Your task to perform on an android device: toggle notifications settings in the gmail app Image 0: 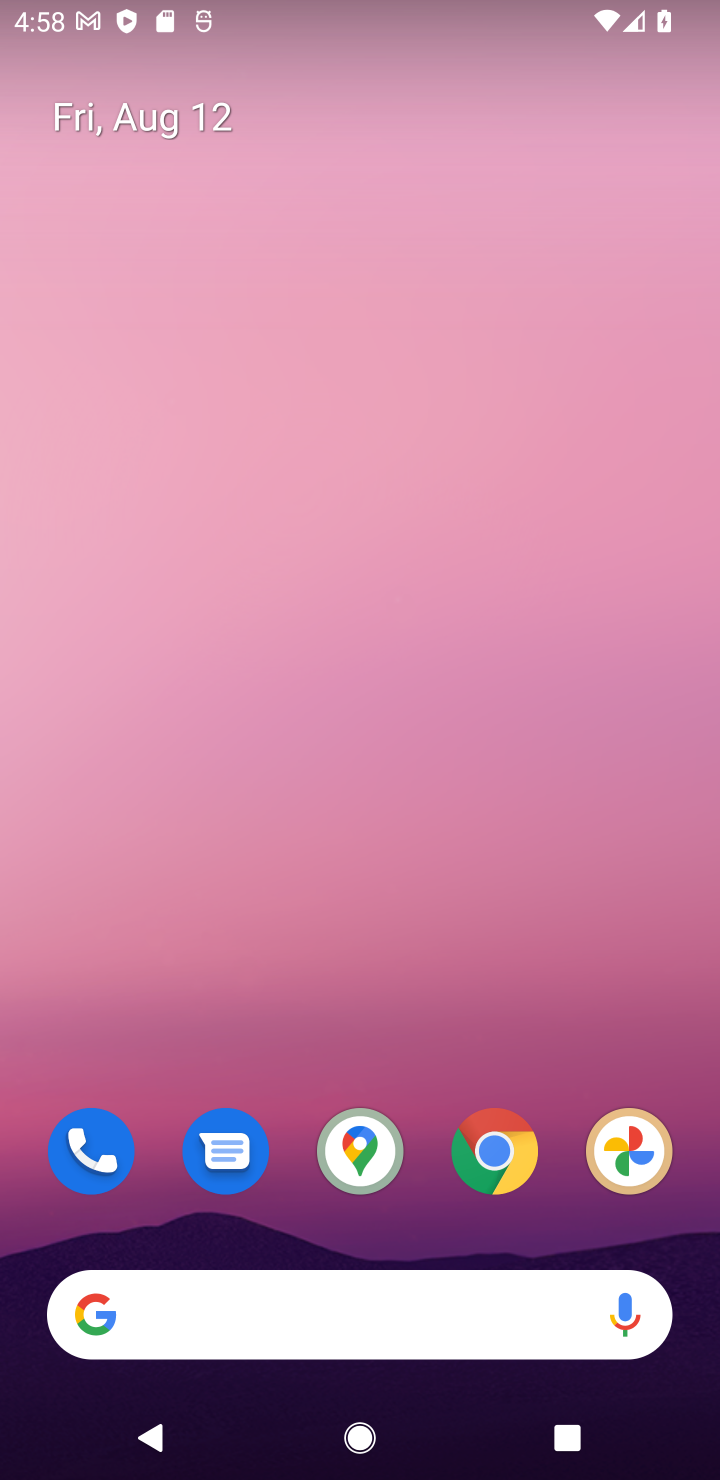
Step 0: drag from (448, 1228) to (442, 268)
Your task to perform on an android device: toggle notifications settings in the gmail app Image 1: 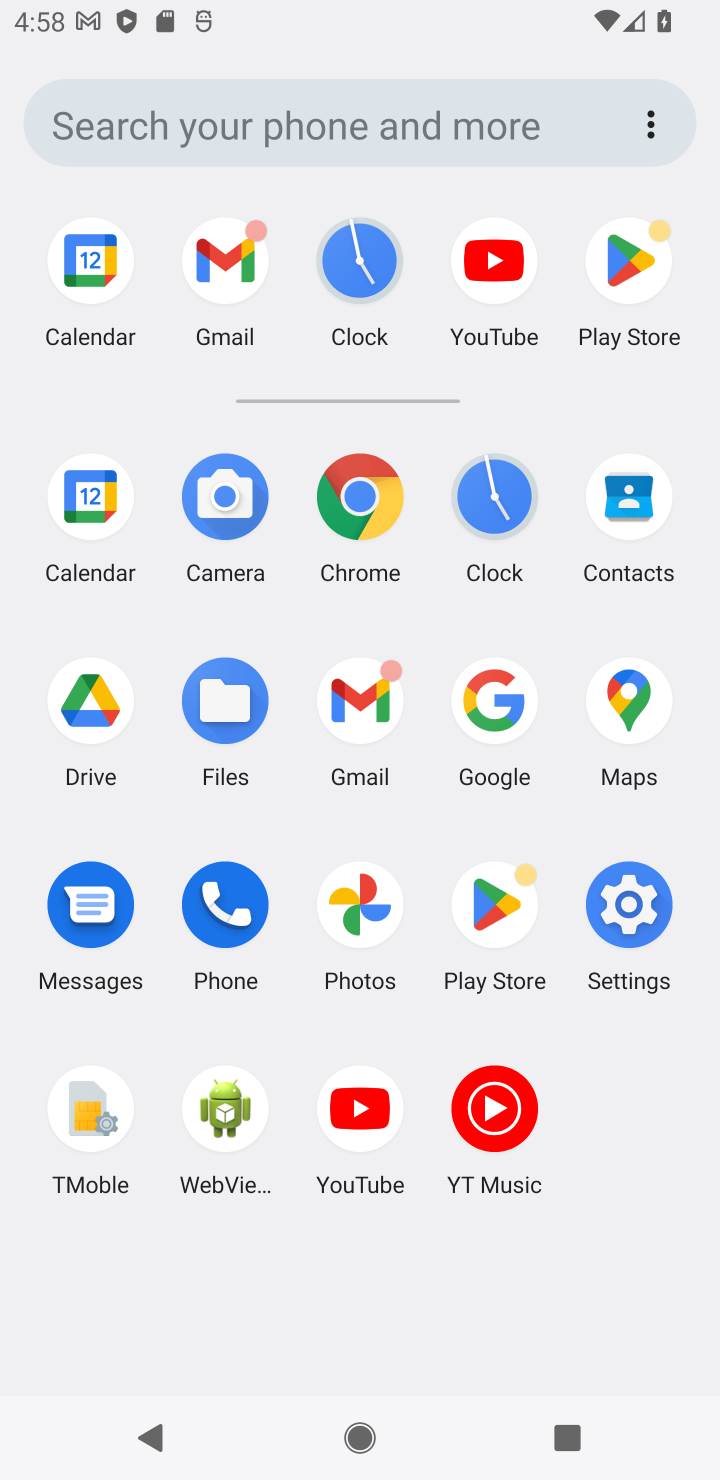
Step 1: click (371, 708)
Your task to perform on an android device: toggle notifications settings in the gmail app Image 2: 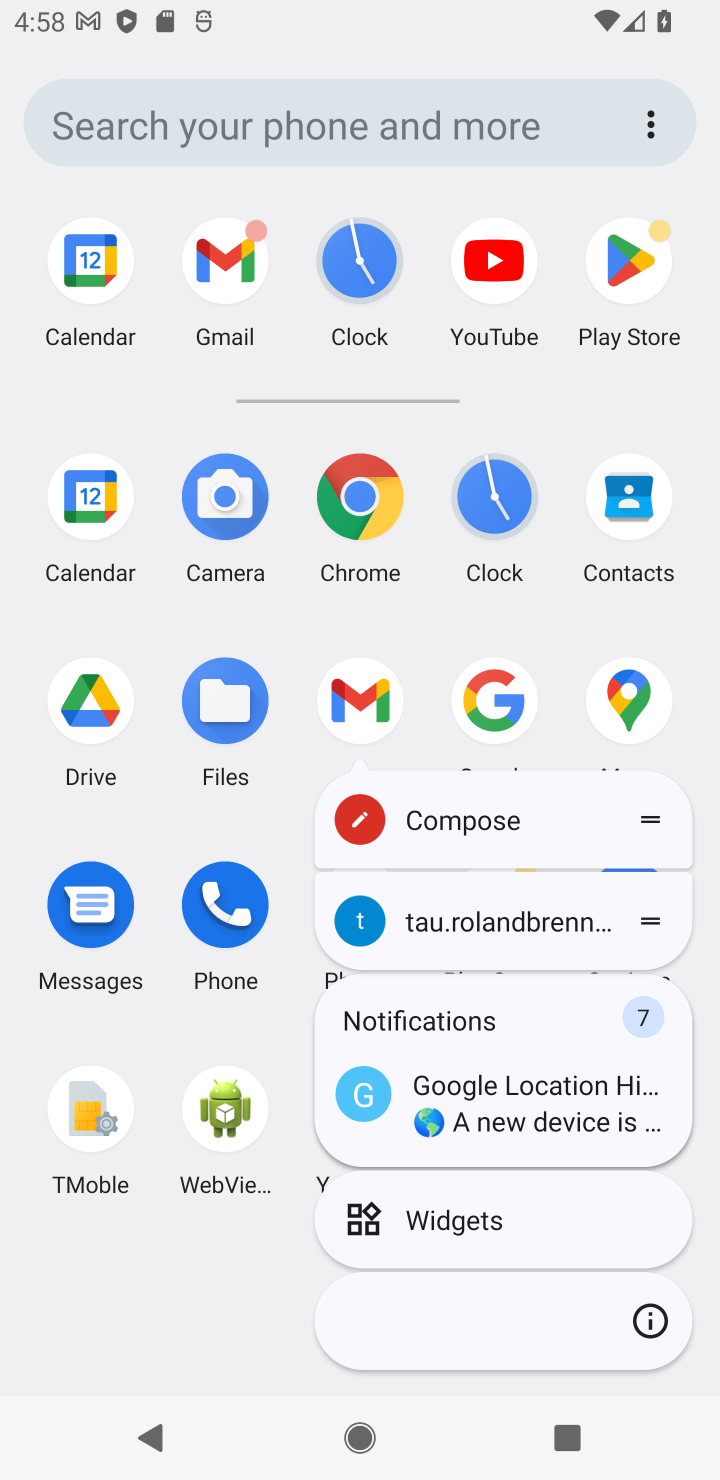
Step 2: click (375, 704)
Your task to perform on an android device: toggle notifications settings in the gmail app Image 3: 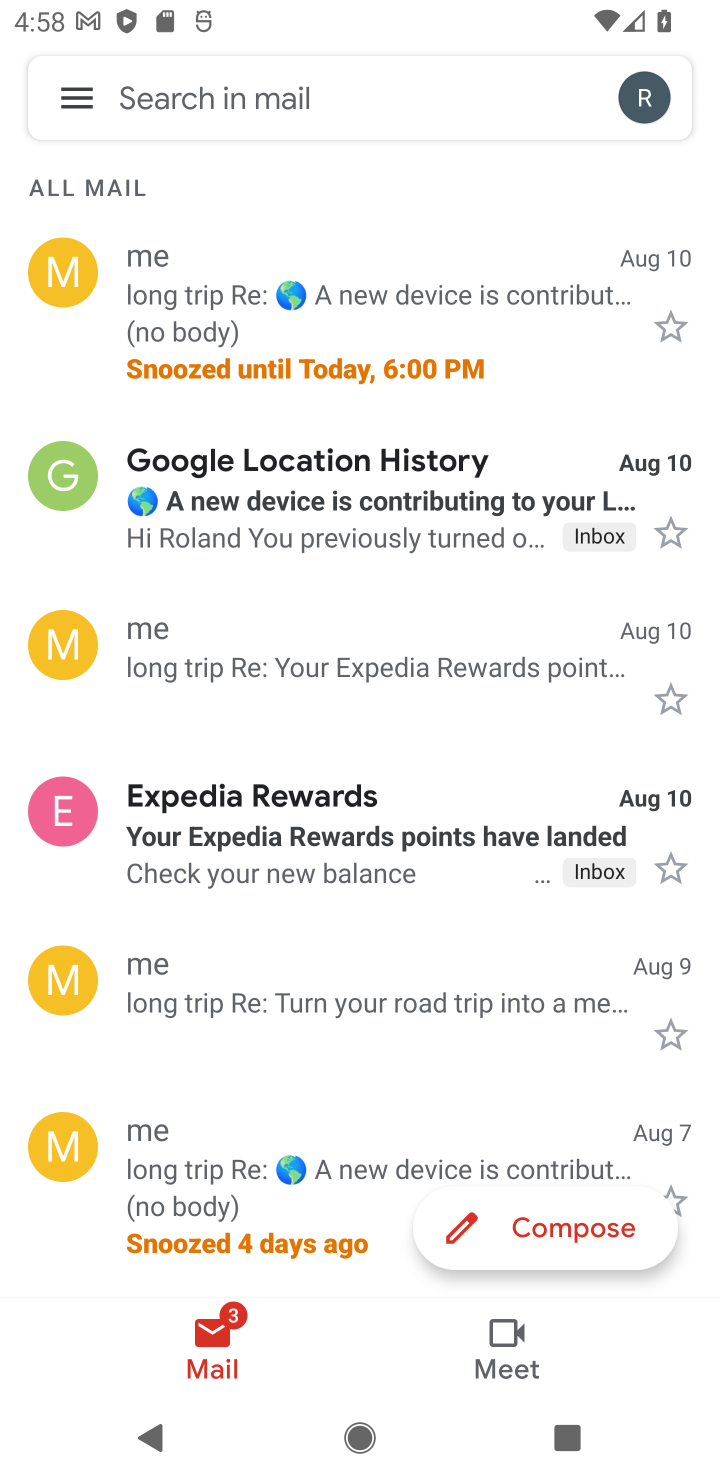
Step 3: click (70, 81)
Your task to perform on an android device: toggle notifications settings in the gmail app Image 4: 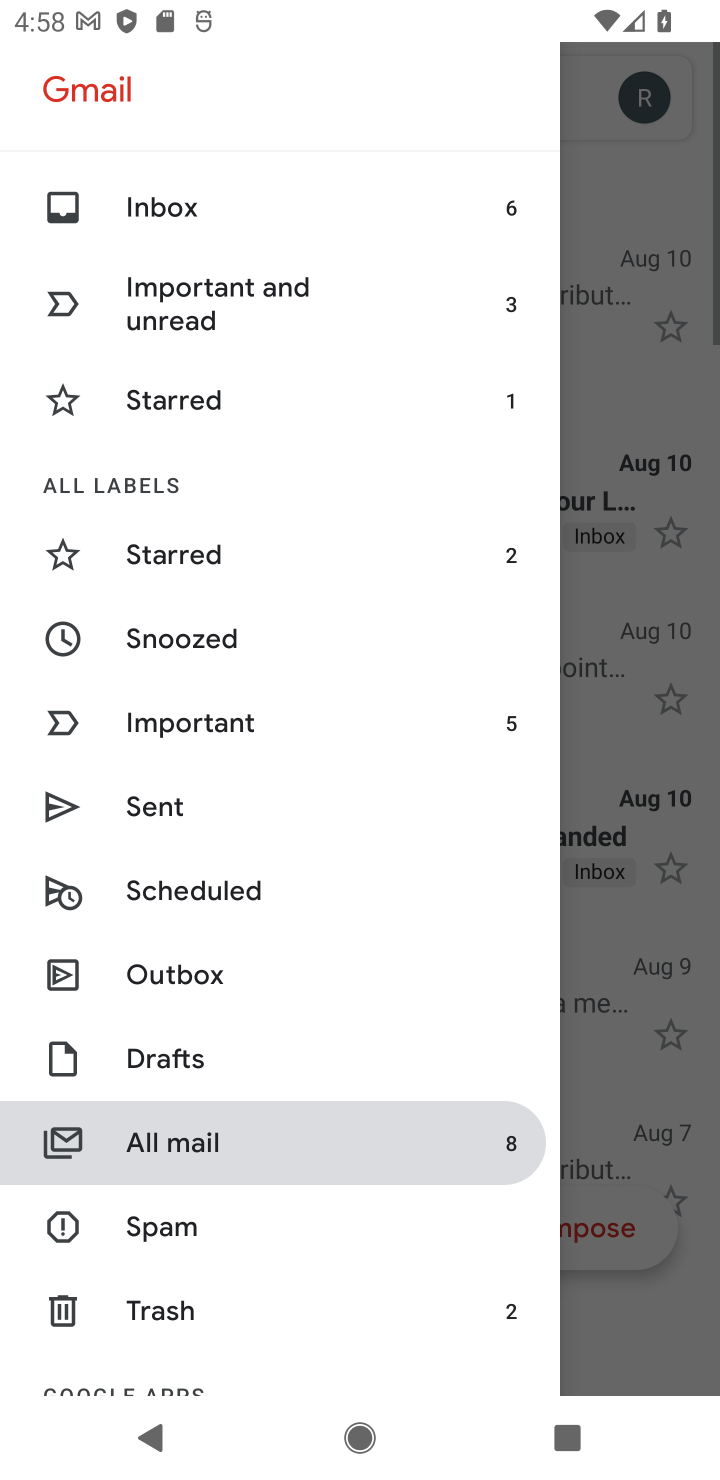
Step 4: drag from (201, 1317) to (334, 539)
Your task to perform on an android device: toggle notifications settings in the gmail app Image 5: 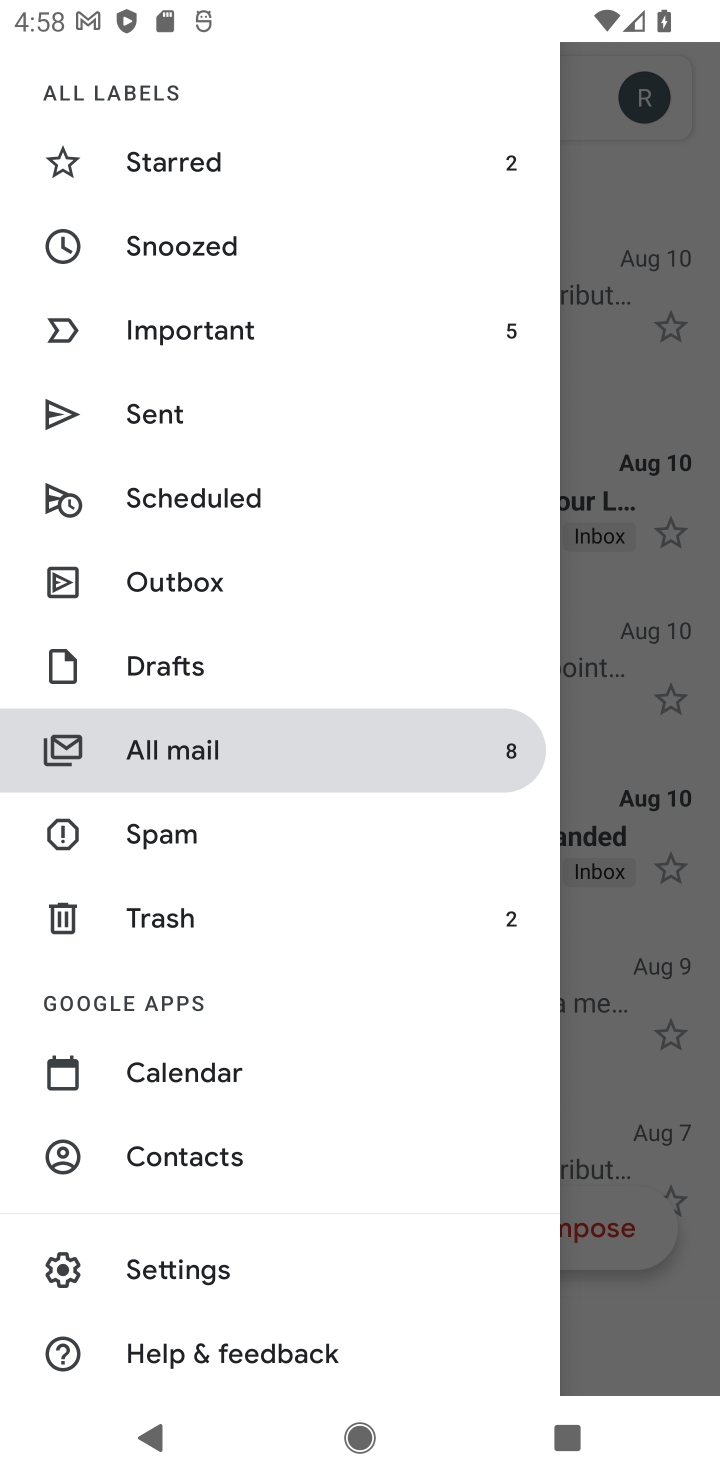
Step 5: click (199, 1276)
Your task to perform on an android device: toggle notifications settings in the gmail app Image 6: 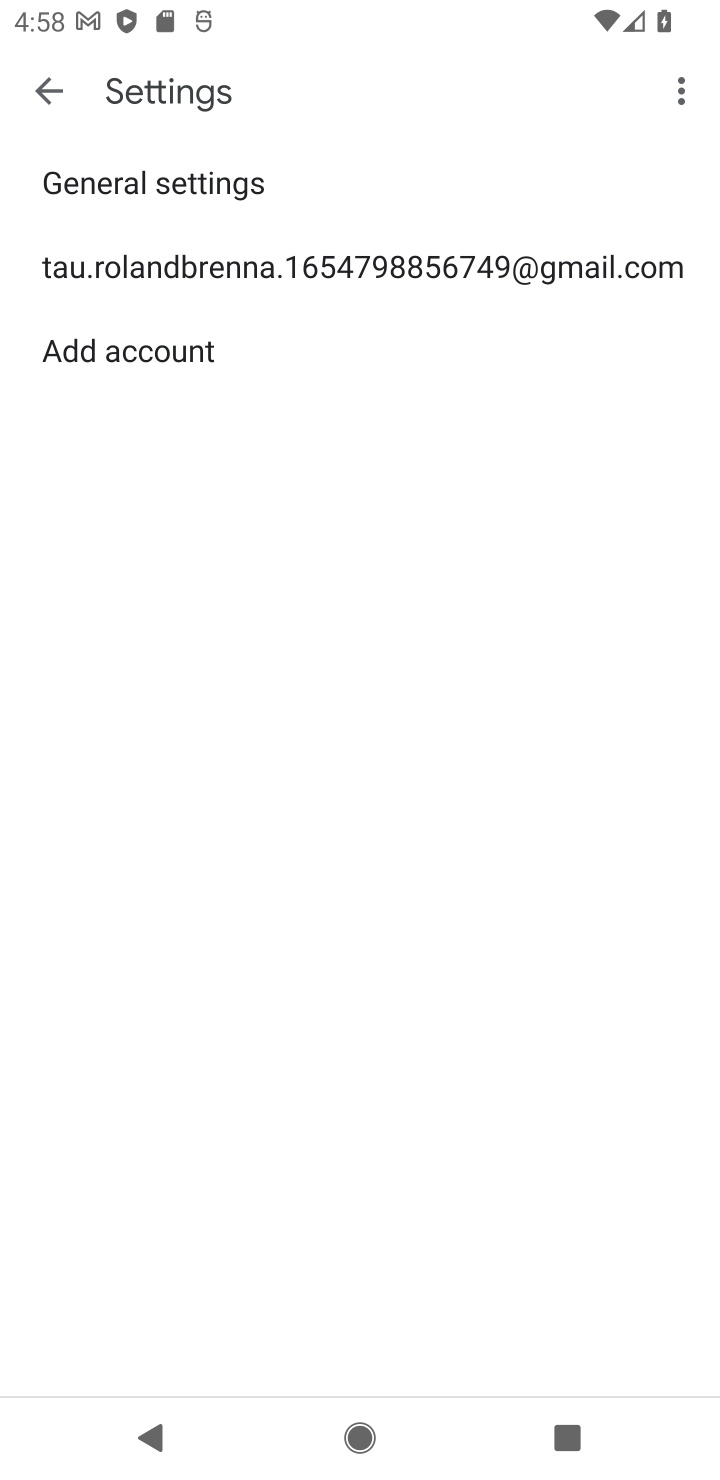
Step 6: click (430, 288)
Your task to perform on an android device: toggle notifications settings in the gmail app Image 7: 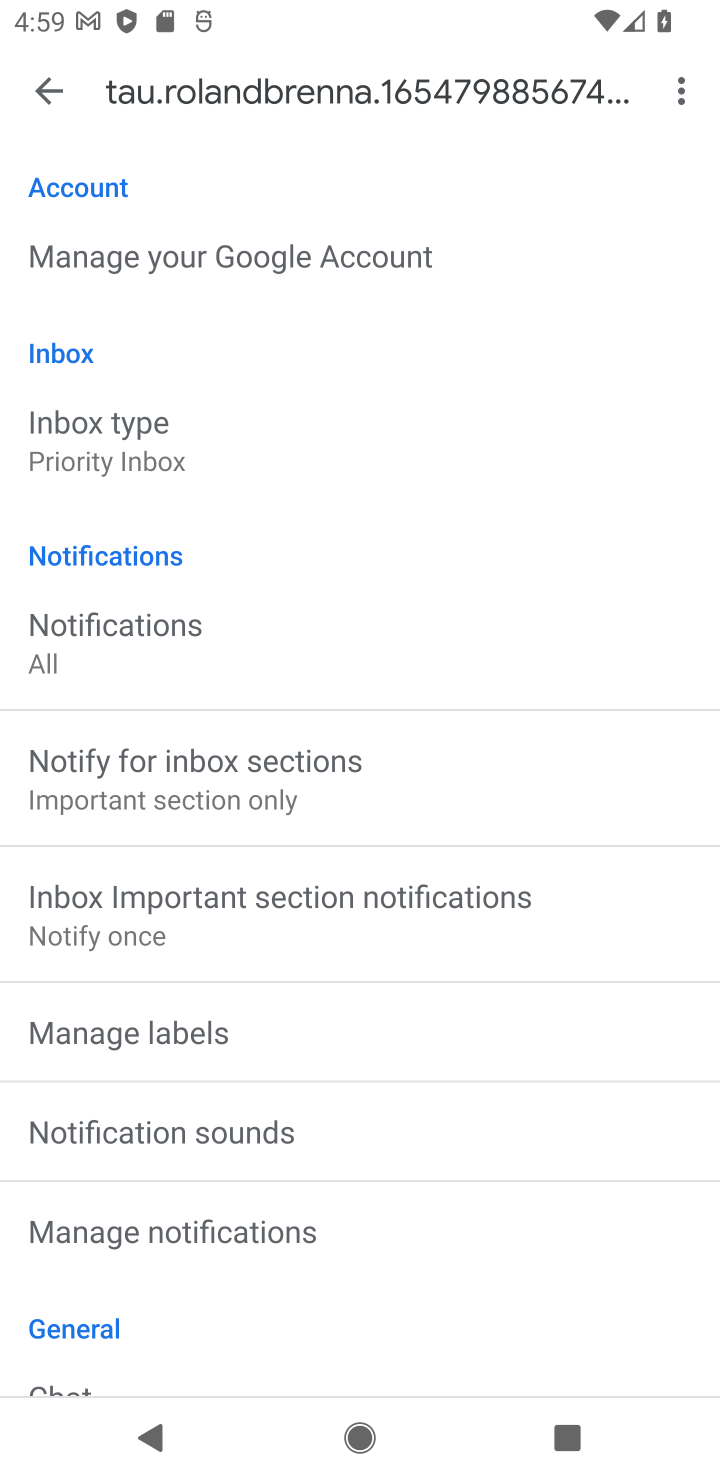
Step 7: click (297, 1236)
Your task to perform on an android device: toggle notifications settings in the gmail app Image 8: 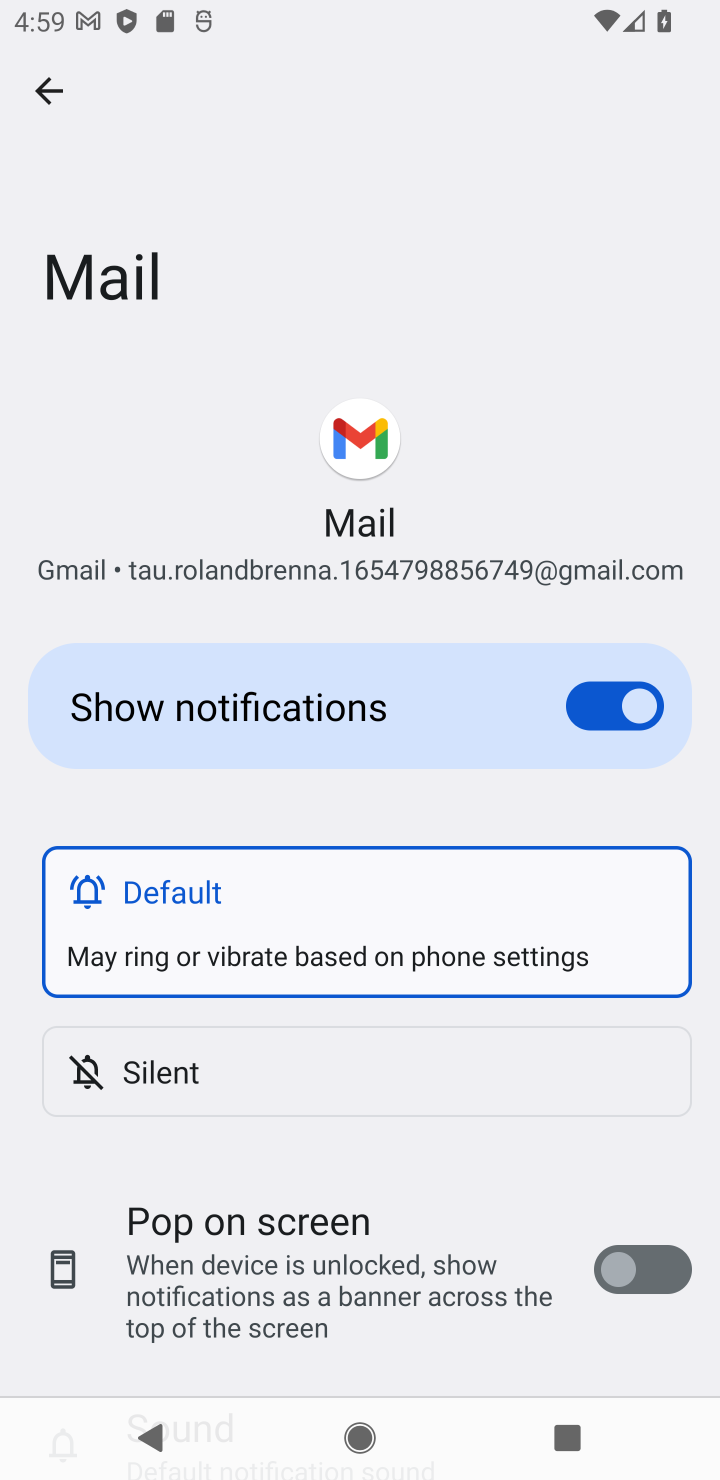
Step 8: click (567, 701)
Your task to perform on an android device: toggle notifications settings in the gmail app Image 9: 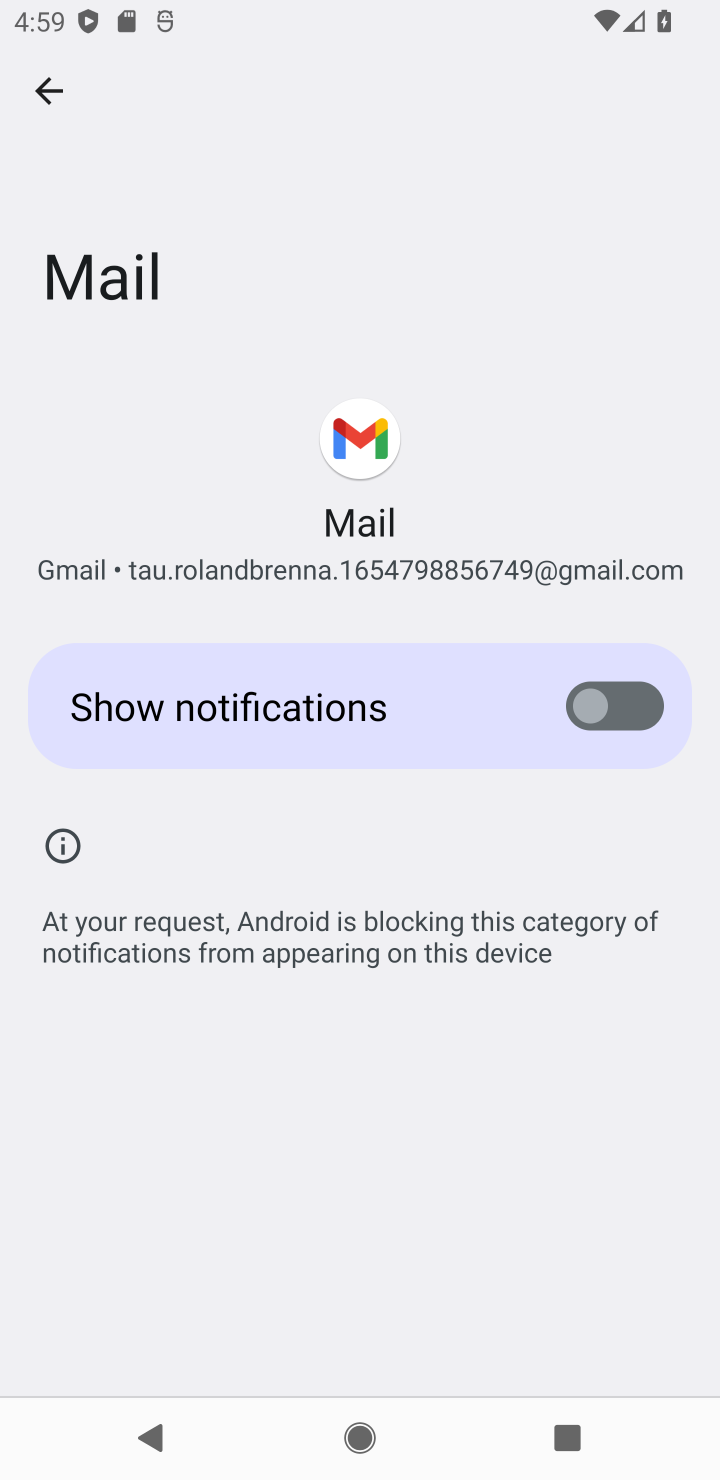
Step 9: task complete